Your task to perform on an android device: What's the weather going to be tomorrow? Image 0: 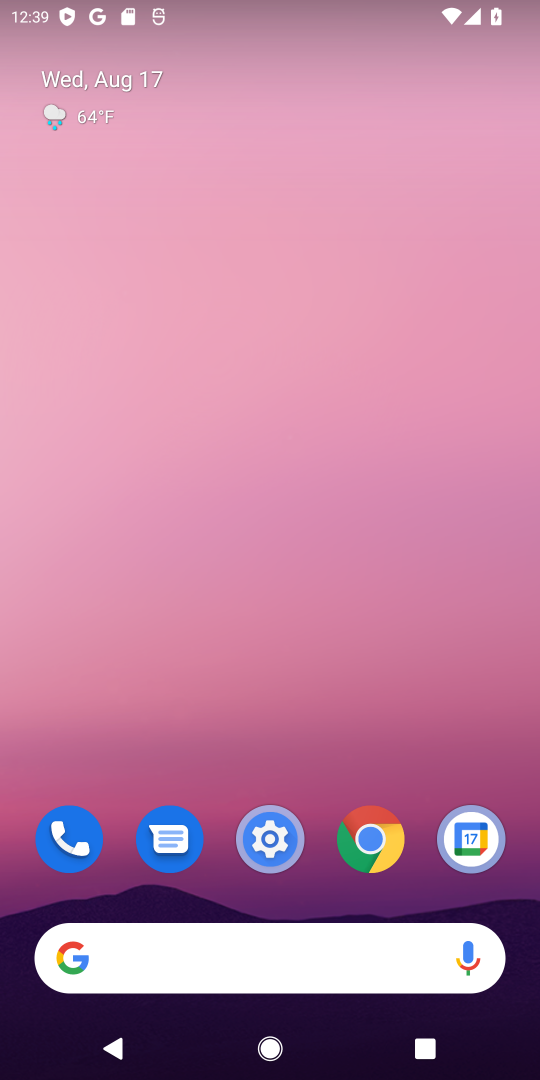
Step 0: drag from (228, 979) to (329, 318)
Your task to perform on an android device: What's the weather going to be tomorrow? Image 1: 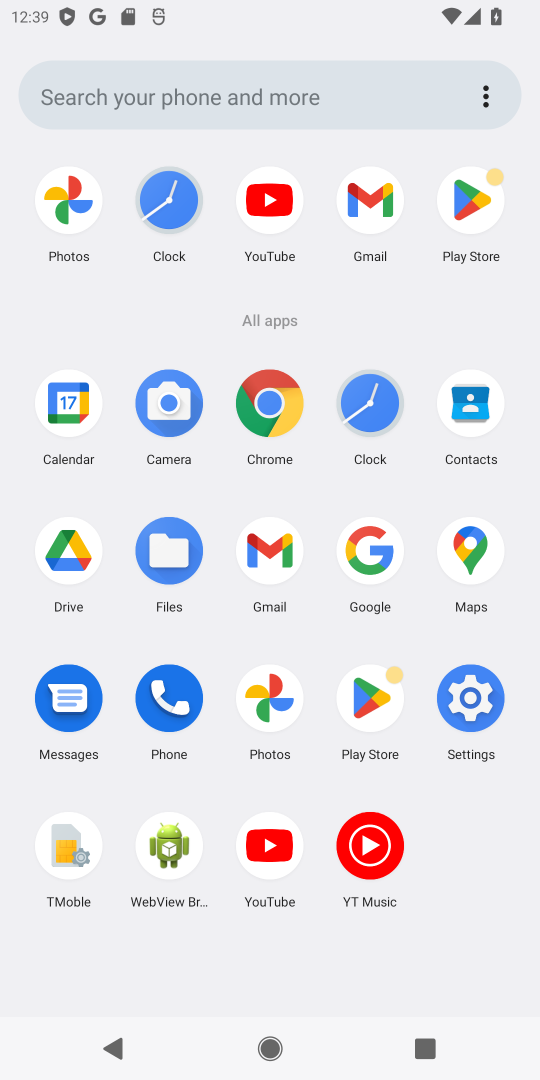
Step 1: click (368, 546)
Your task to perform on an android device: What's the weather going to be tomorrow? Image 2: 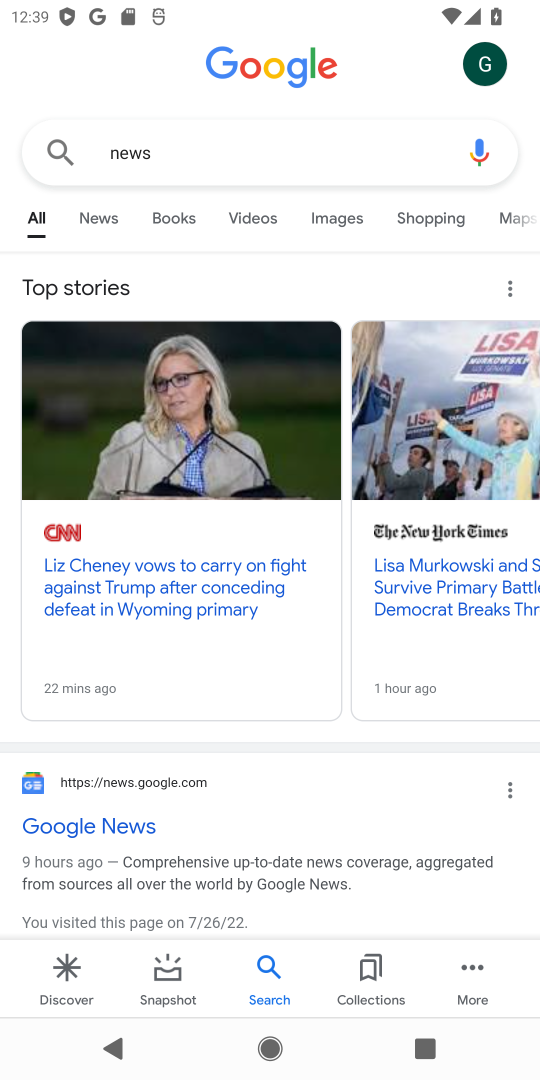
Step 2: click (383, 166)
Your task to perform on an android device: What's the weather going to be tomorrow? Image 3: 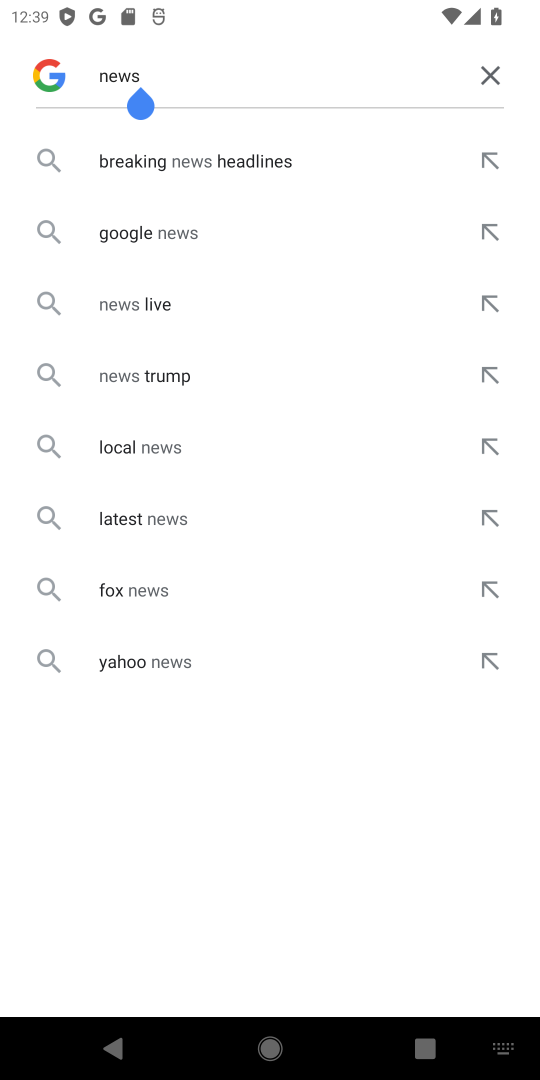
Step 3: click (484, 82)
Your task to perform on an android device: What's the weather going to be tomorrow? Image 4: 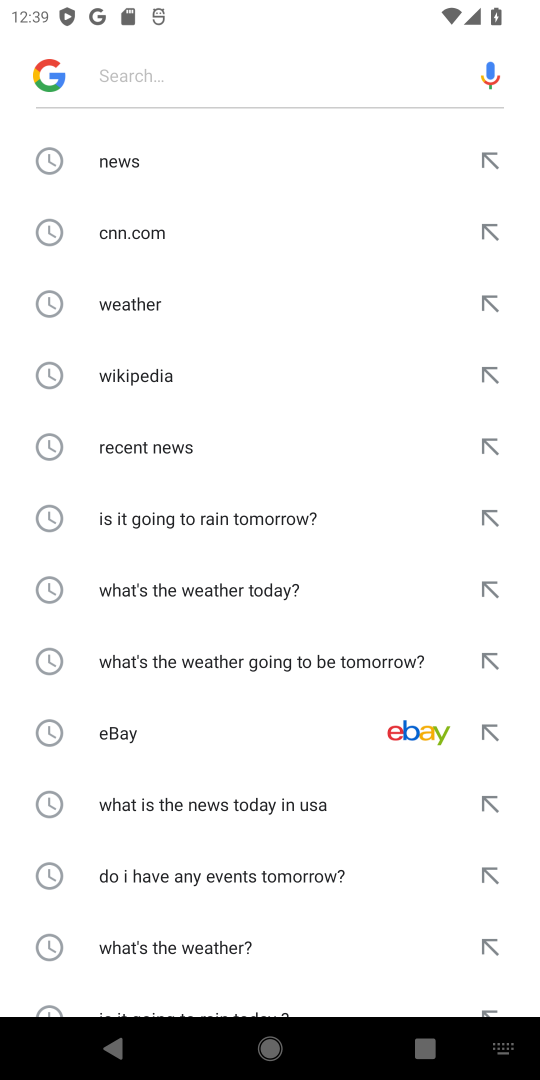
Step 4: type "What's the weather going to be tomorrow?"
Your task to perform on an android device: What's the weather going to be tomorrow? Image 5: 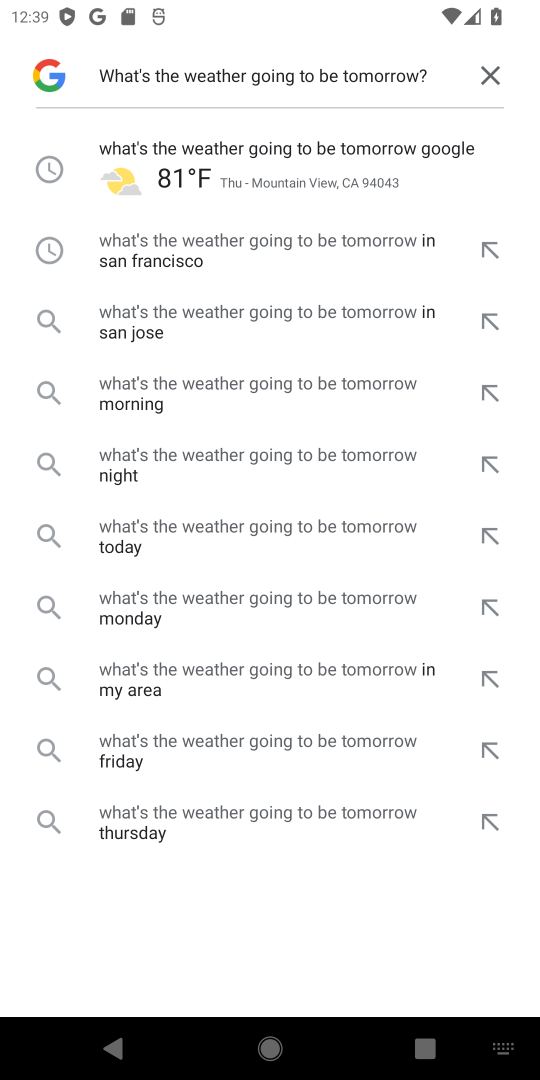
Step 5: click (218, 140)
Your task to perform on an android device: What's the weather going to be tomorrow? Image 6: 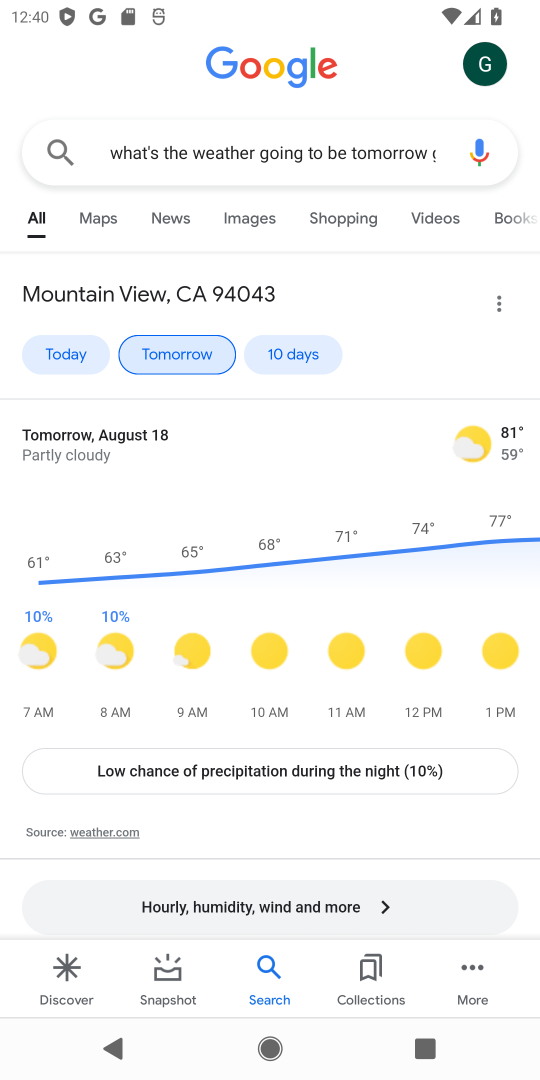
Step 6: task complete